Your task to perform on an android device: set the stopwatch Image 0: 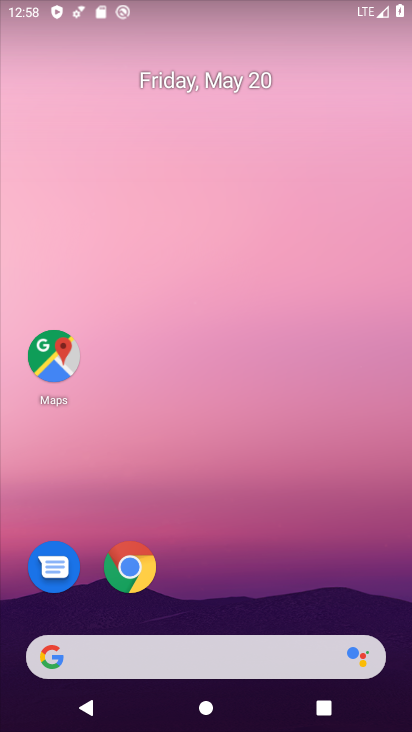
Step 0: drag from (261, 590) to (283, 46)
Your task to perform on an android device: set the stopwatch Image 1: 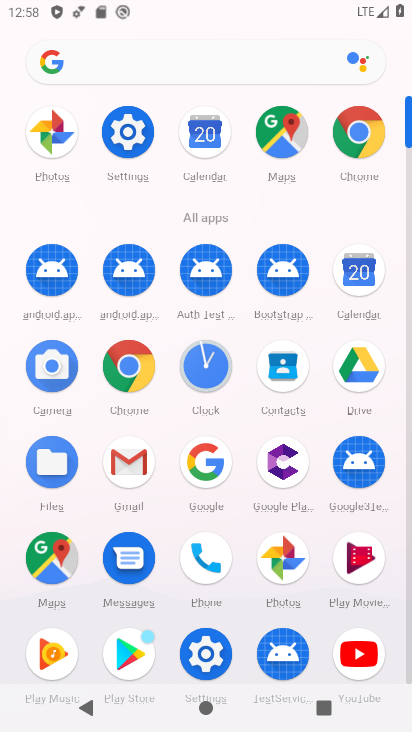
Step 1: click (210, 370)
Your task to perform on an android device: set the stopwatch Image 2: 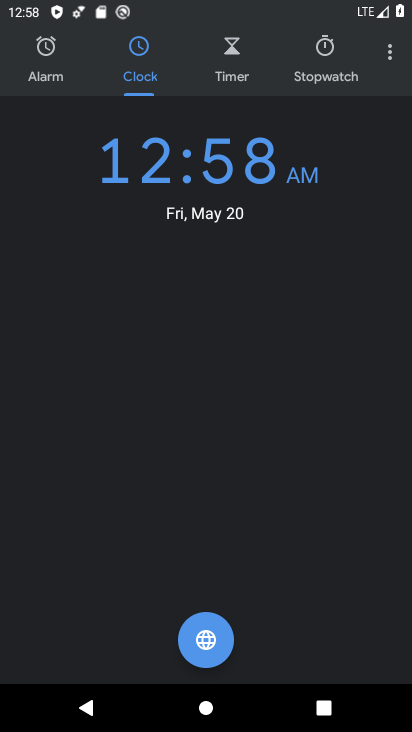
Step 2: click (339, 69)
Your task to perform on an android device: set the stopwatch Image 3: 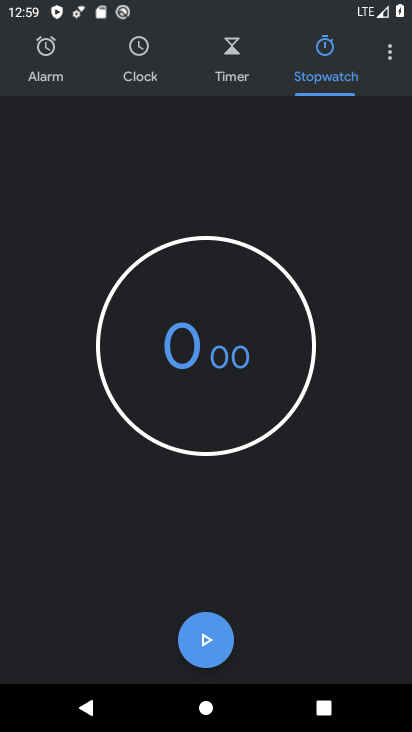
Step 3: click (209, 629)
Your task to perform on an android device: set the stopwatch Image 4: 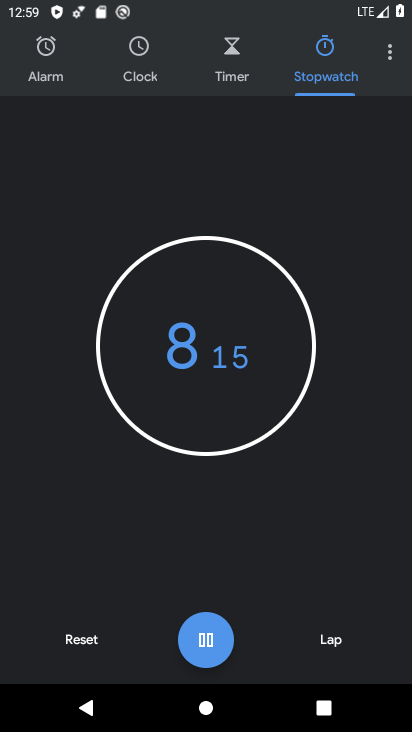
Step 4: task complete